Your task to perform on an android device: turn off wifi Image 0: 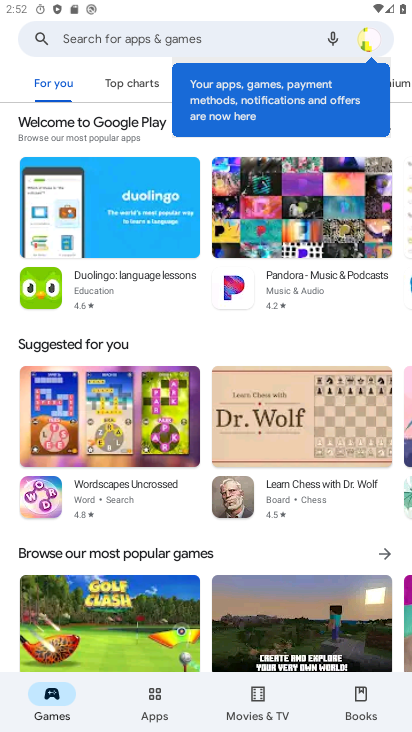
Step 0: press home button
Your task to perform on an android device: turn off wifi Image 1: 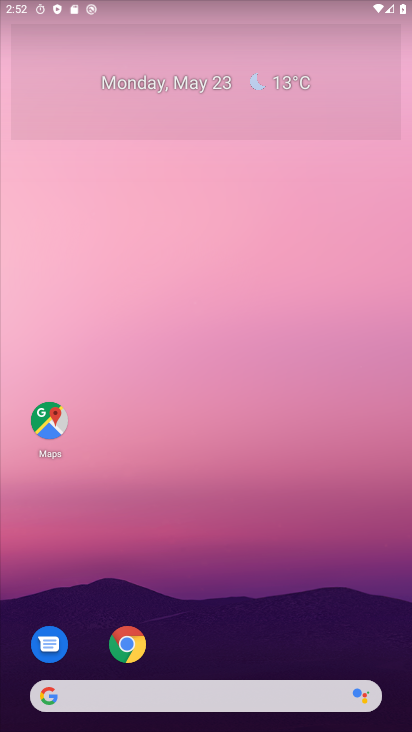
Step 1: drag from (241, 674) to (220, 76)
Your task to perform on an android device: turn off wifi Image 2: 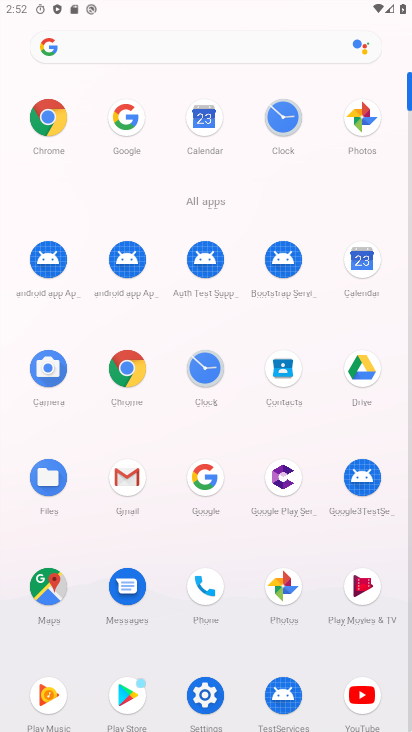
Step 2: click (216, 692)
Your task to perform on an android device: turn off wifi Image 3: 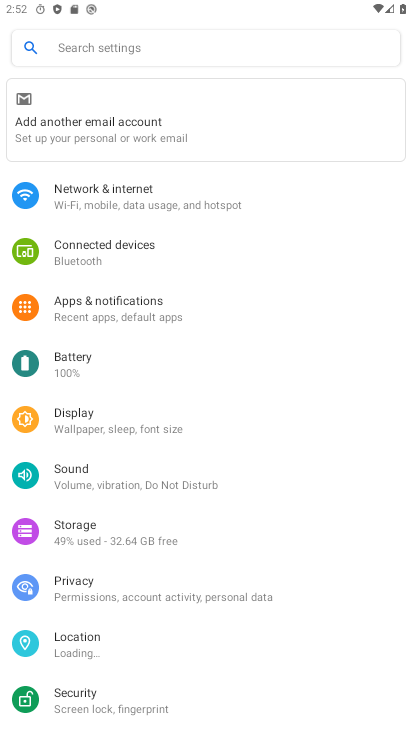
Step 3: click (25, 196)
Your task to perform on an android device: turn off wifi Image 4: 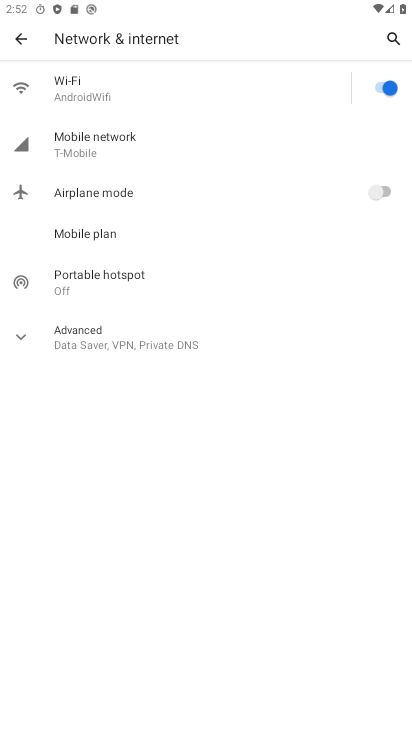
Step 4: click (389, 85)
Your task to perform on an android device: turn off wifi Image 5: 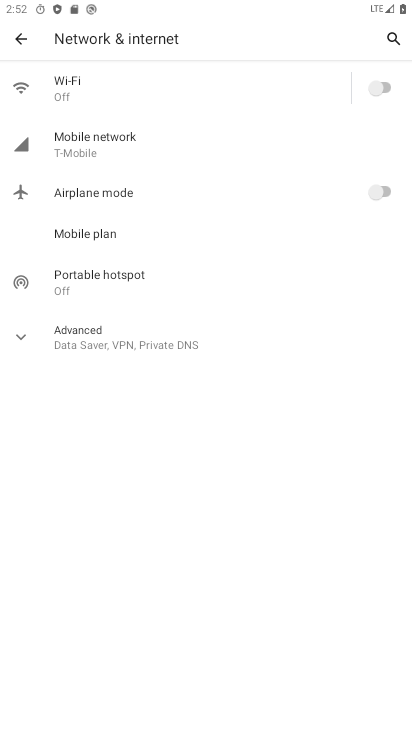
Step 5: task complete